Your task to perform on an android device: Go to wifi settings Image 0: 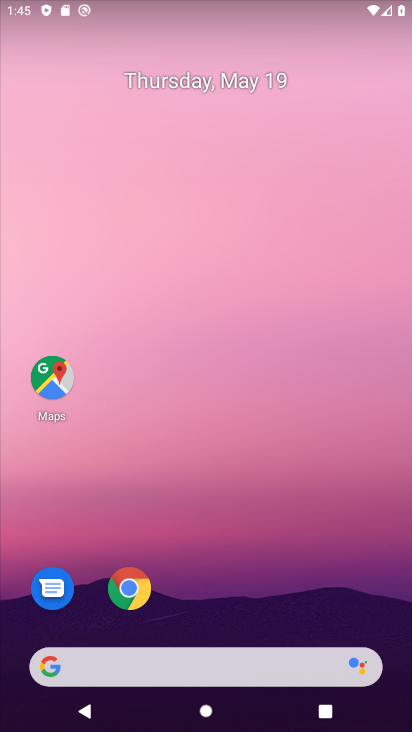
Step 0: drag from (275, 553) to (242, 71)
Your task to perform on an android device: Go to wifi settings Image 1: 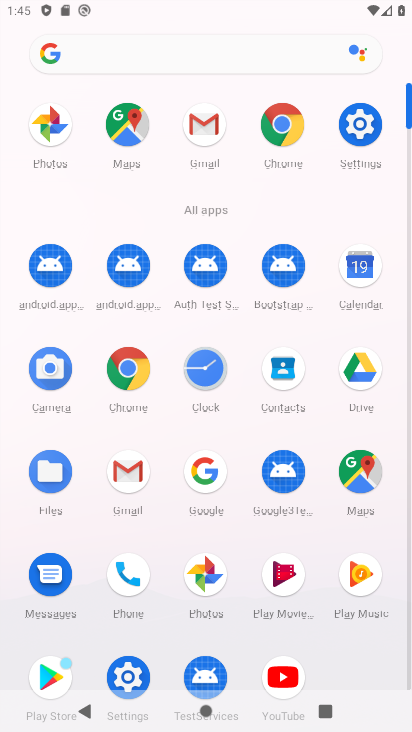
Step 1: click (374, 147)
Your task to perform on an android device: Go to wifi settings Image 2: 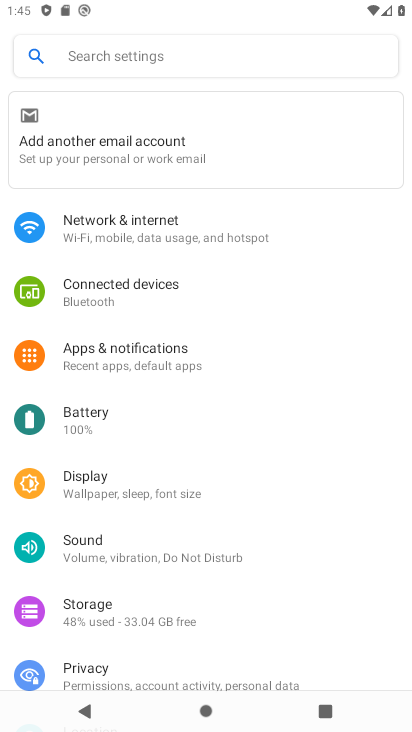
Step 2: click (190, 207)
Your task to perform on an android device: Go to wifi settings Image 3: 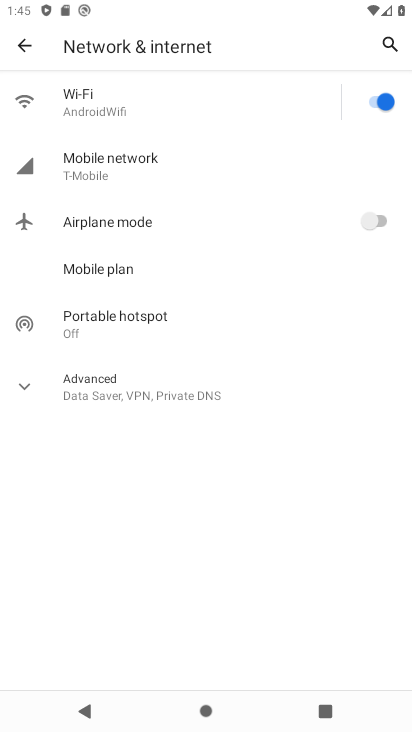
Step 3: click (227, 109)
Your task to perform on an android device: Go to wifi settings Image 4: 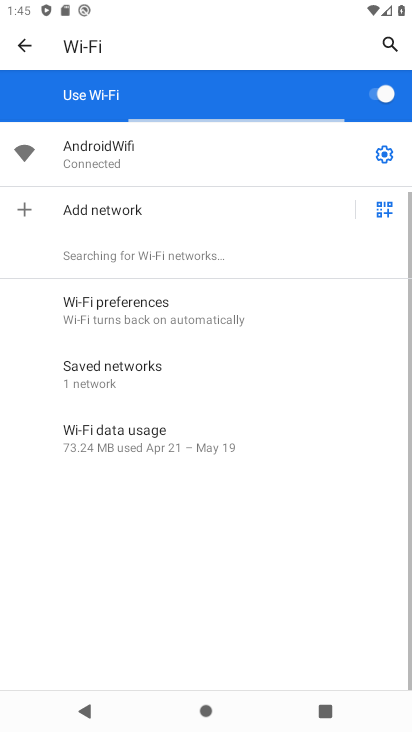
Step 4: click (383, 155)
Your task to perform on an android device: Go to wifi settings Image 5: 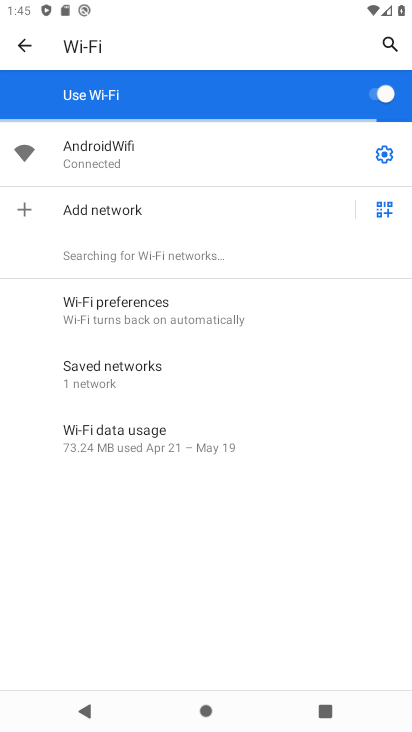
Step 5: click (380, 150)
Your task to perform on an android device: Go to wifi settings Image 6: 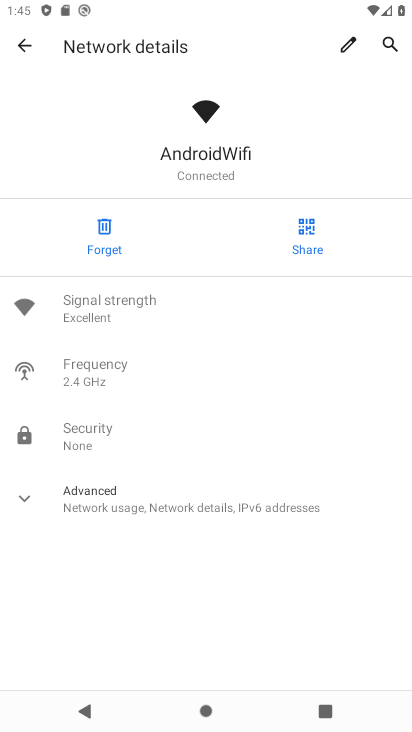
Step 6: task complete